Your task to perform on an android device: Go to sound settings Image 0: 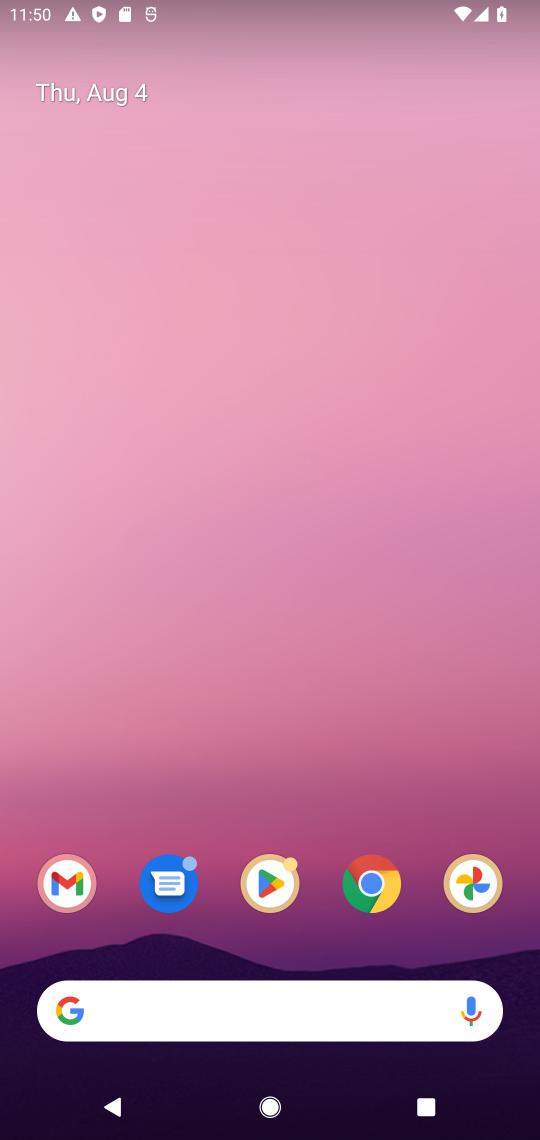
Step 0: drag from (198, 915) to (289, 93)
Your task to perform on an android device: Go to sound settings Image 1: 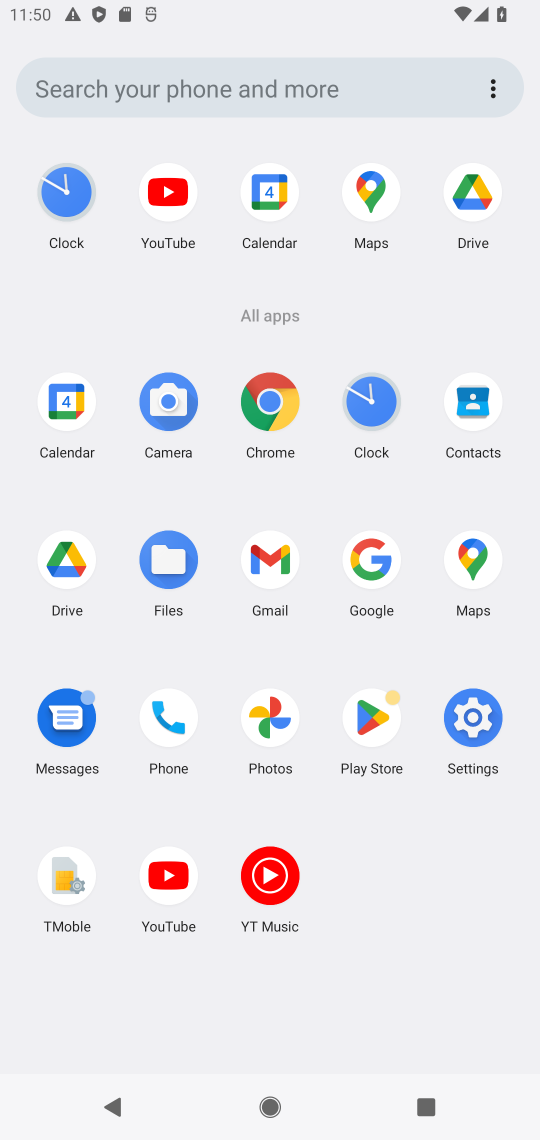
Step 1: click (487, 718)
Your task to perform on an android device: Go to sound settings Image 2: 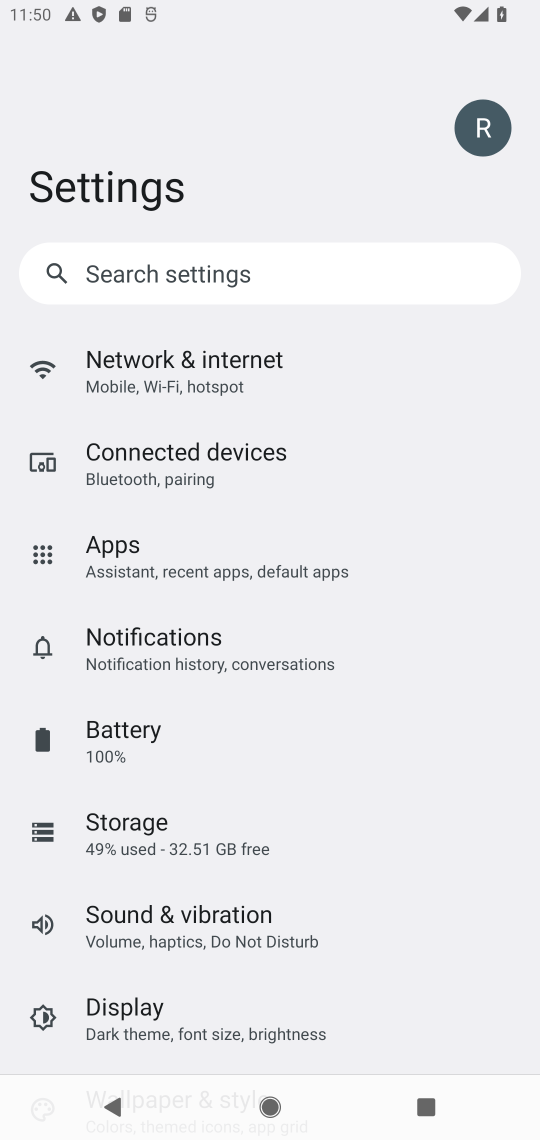
Step 2: drag from (220, 893) to (269, 323)
Your task to perform on an android device: Go to sound settings Image 3: 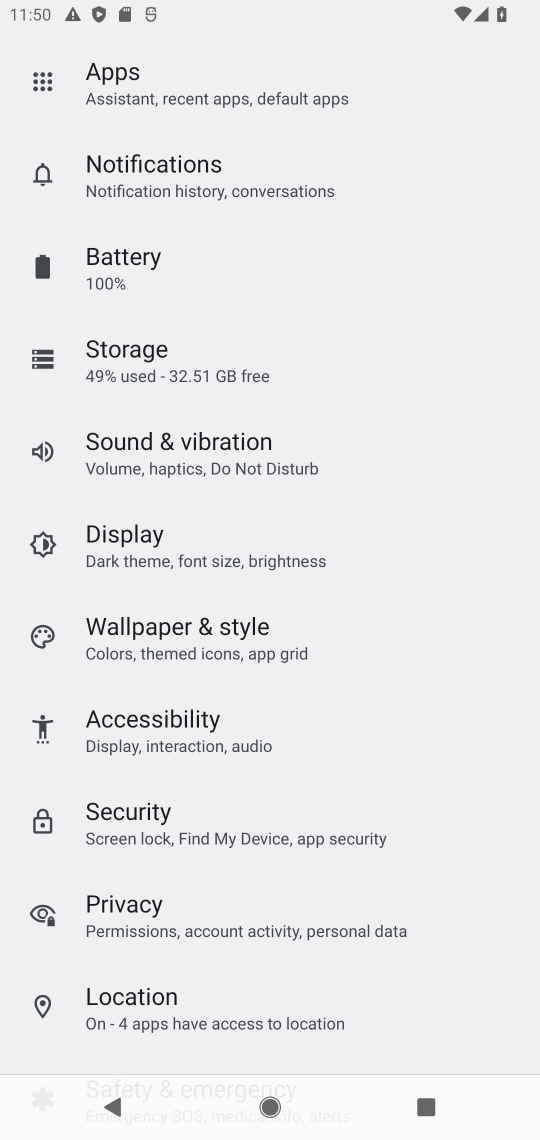
Step 3: drag from (188, 313) to (245, 821)
Your task to perform on an android device: Go to sound settings Image 4: 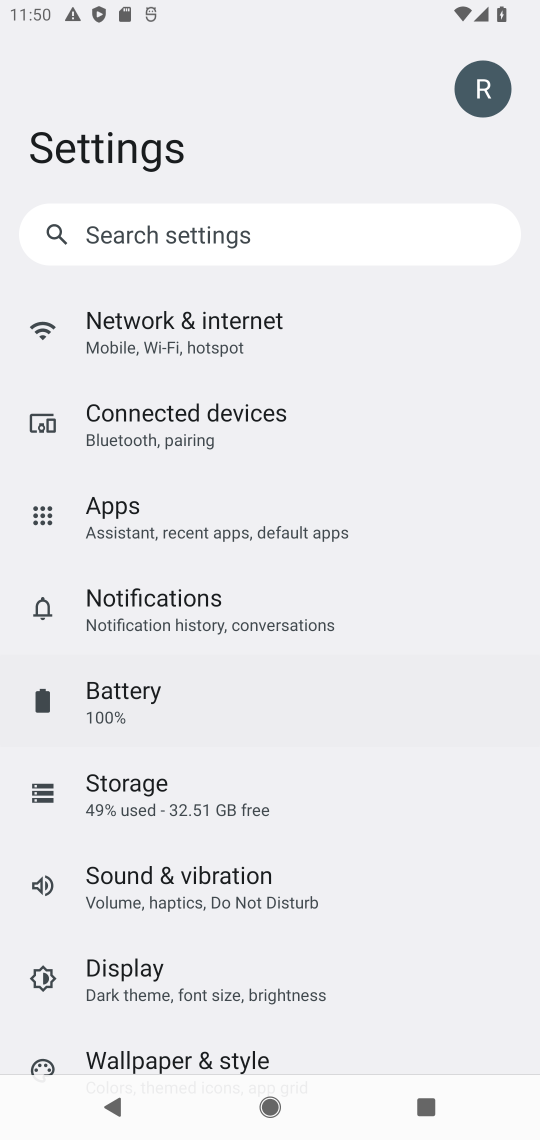
Step 4: drag from (253, 839) to (312, 230)
Your task to perform on an android device: Go to sound settings Image 5: 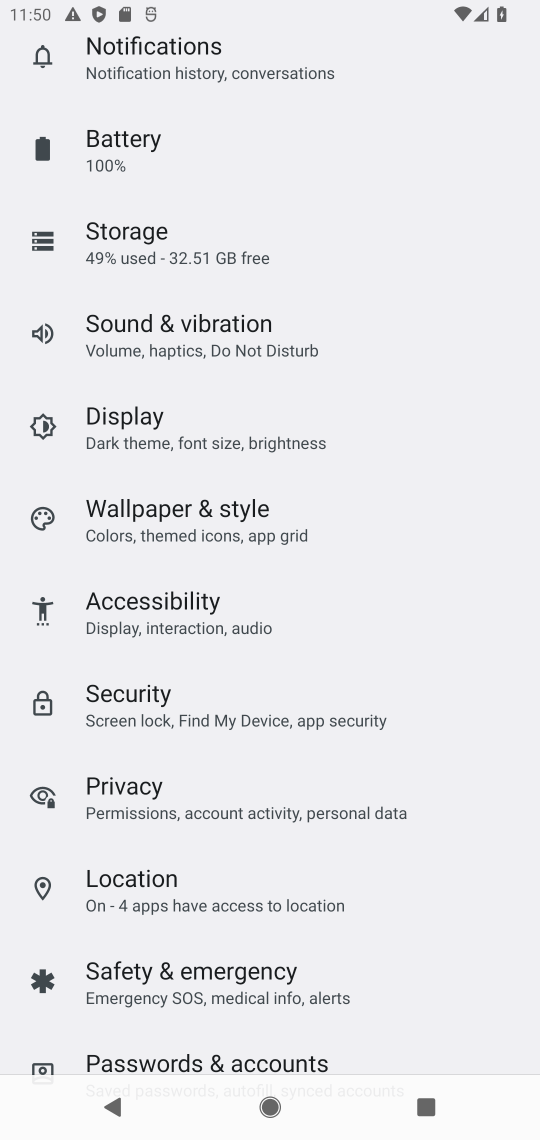
Step 5: click (172, 336)
Your task to perform on an android device: Go to sound settings Image 6: 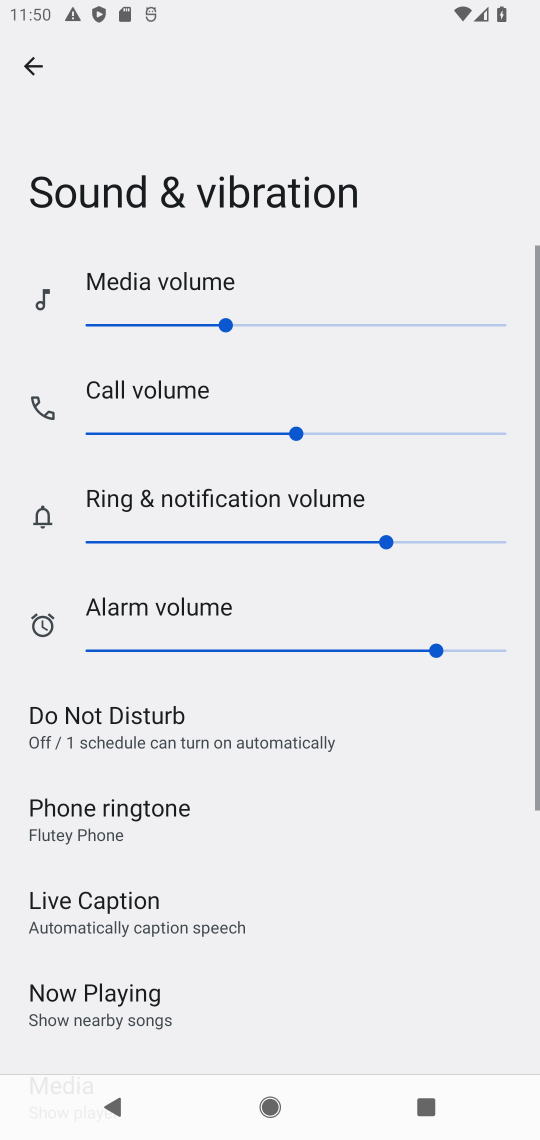
Step 6: task complete